Your task to perform on an android device: snooze an email in the gmail app Image 0: 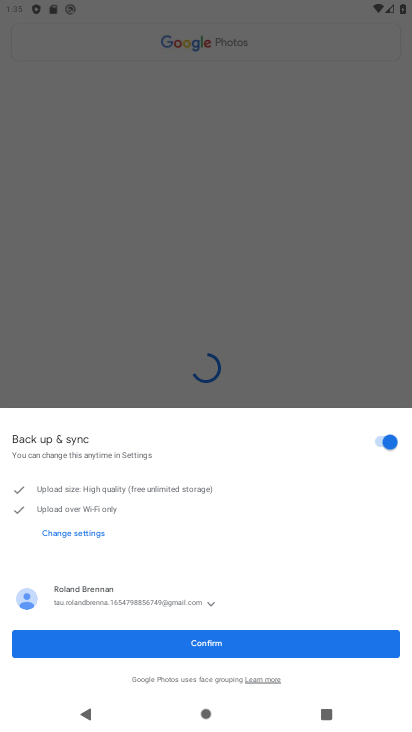
Step 0: press home button
Your task to perform on an android device: snooze an email in the gmail app Image 1: 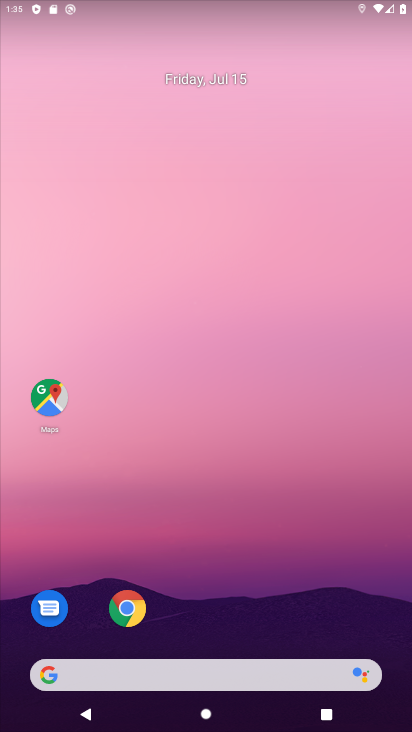
Step 1: drag from (181, 668) to (232, 72)
Your task to perform on an android device: snooze an email in the gmail app Image 2: 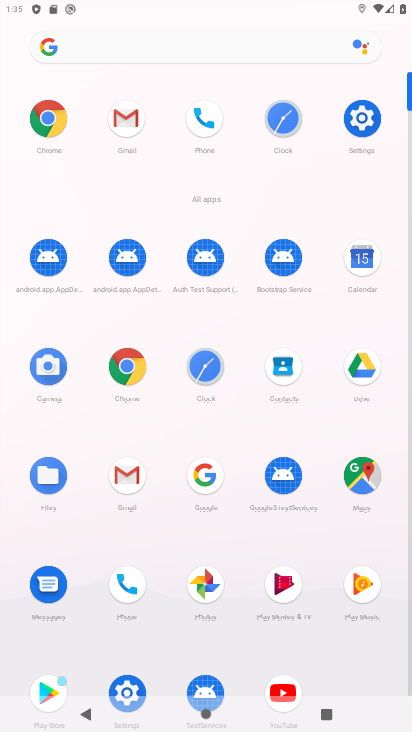
Step 2: click (123, 488)
Your task to perform on an android device: snooze an email in the gmail app Image 3: 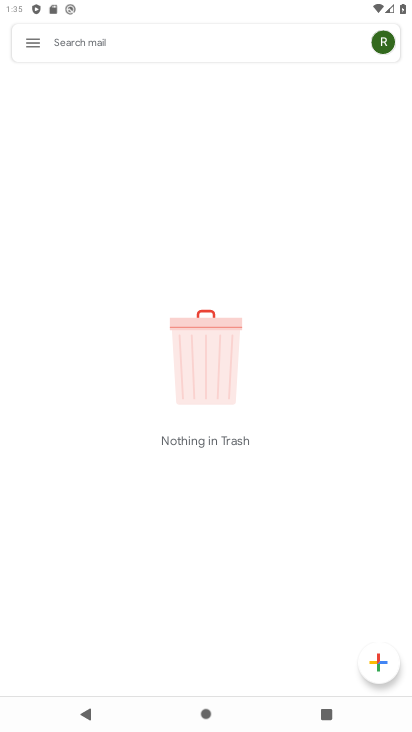
Step 3: click (33, 43)
Your task to perform on an android device: snooze an email in the gmail app Image 4: 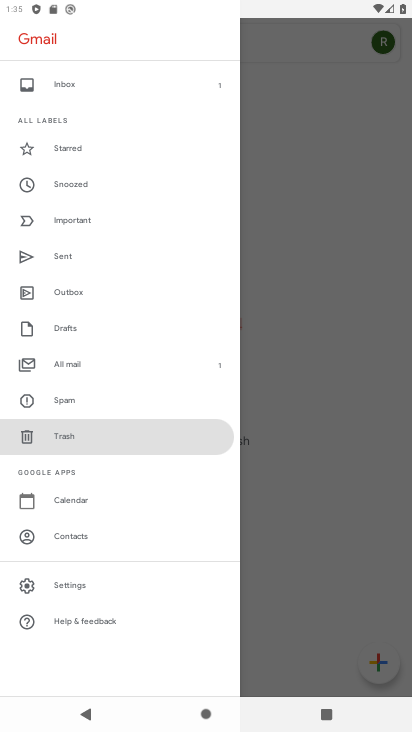
Step 4: click (96, 367)
Your task to perform on an android device: snooze an email in the gmail app Image 5: 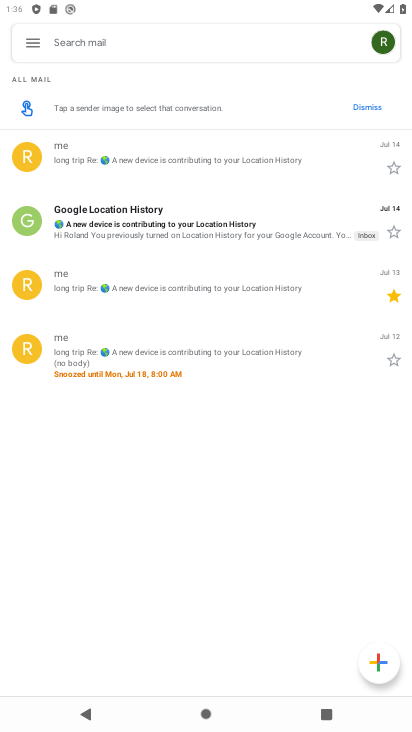
Step 5: click (24, 158)
Your task to perform on an android device: snooze an email in the gmail app Image 6: 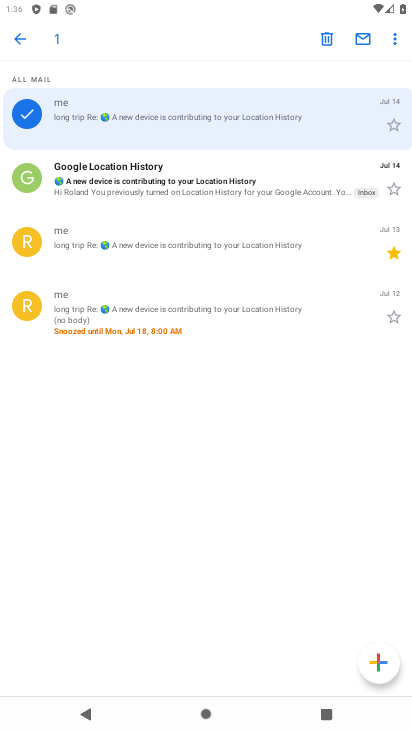
Step 6: click (396, 36)
Your task to perform on an android device: snooze an email in the gmail app Image 7: 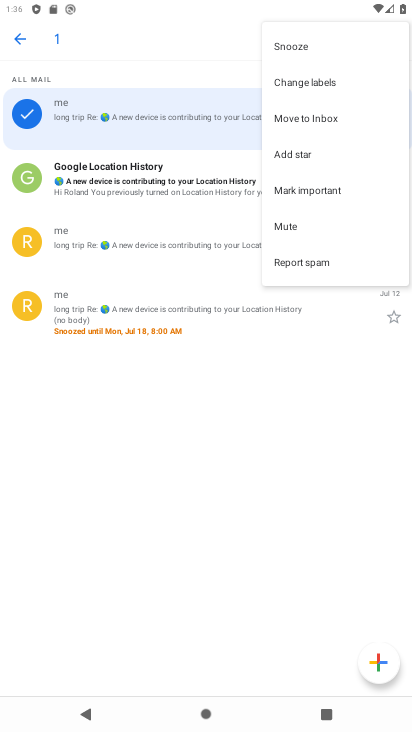
Step 7: click (332, 47)
Your task to perform on an android device: snooze an email in the gmail app Image 8: 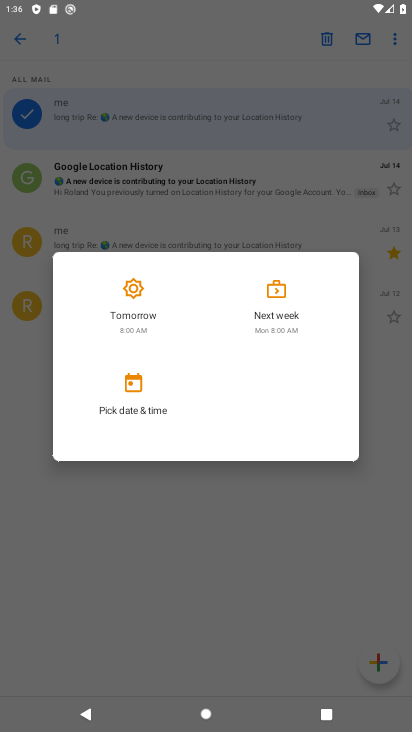
Step 8: click (156, 306)
Your task to perform on an android device: snooze an email in the gmail app Image 9: 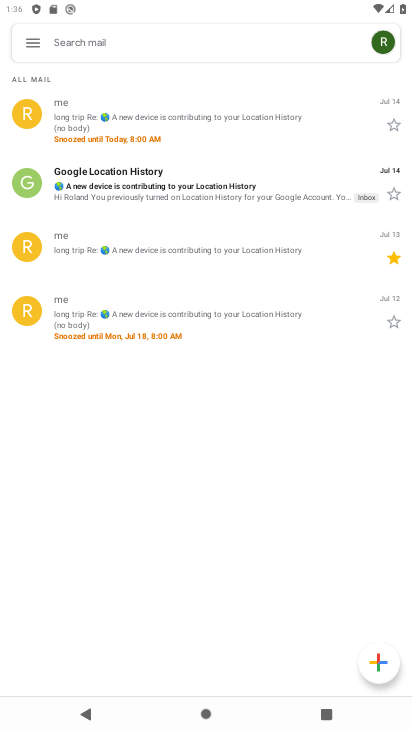
Step 9: task complete